Your task to perform on an android device: Open location settings Image 0: 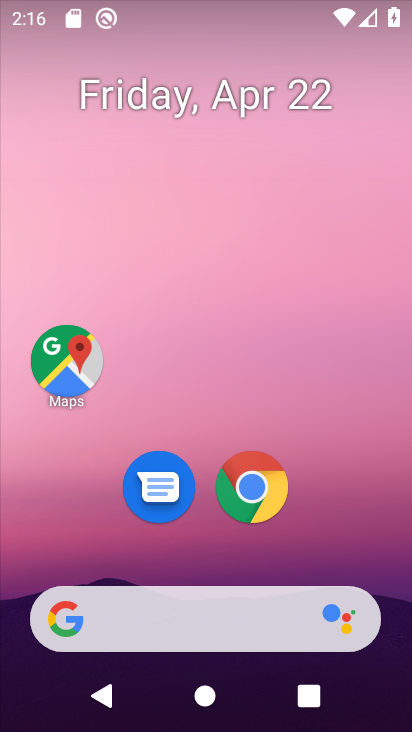
Step 0: drag from (344, 510) to (354, 190)
Your task to perform on an android device: Open location settings Image 1: 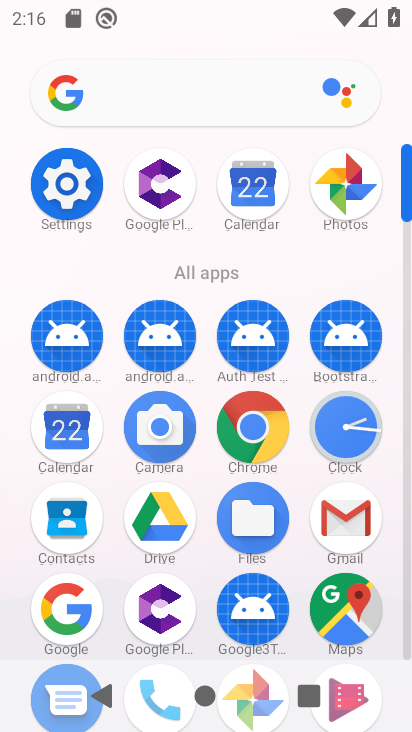
Step 1: click (67, 196)
Your task to perform on an android device: Open location settings Image 2: 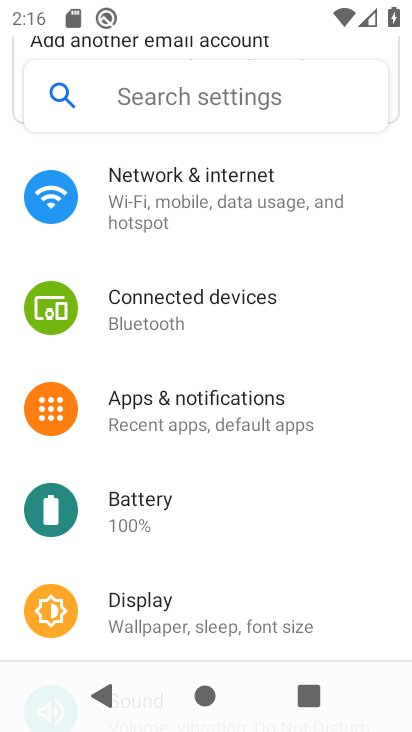
Step 2: click (48, 194)
Your task to perform on an android device: Open location settings Image 3: 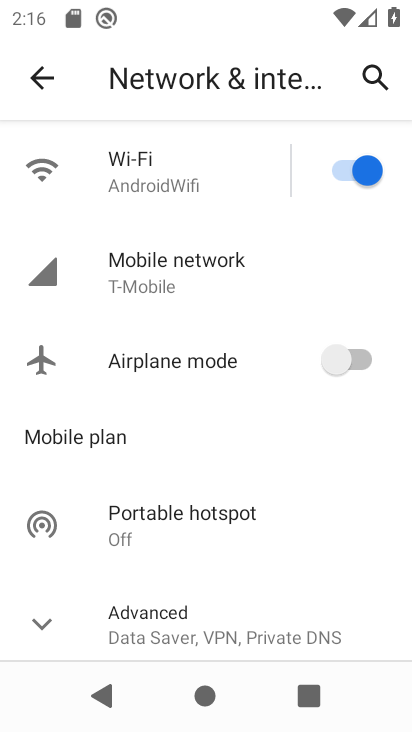
Step 3: drag from (217, 363) to (218, 220)
Your task to perform on an android device: Open location settings Image 4: 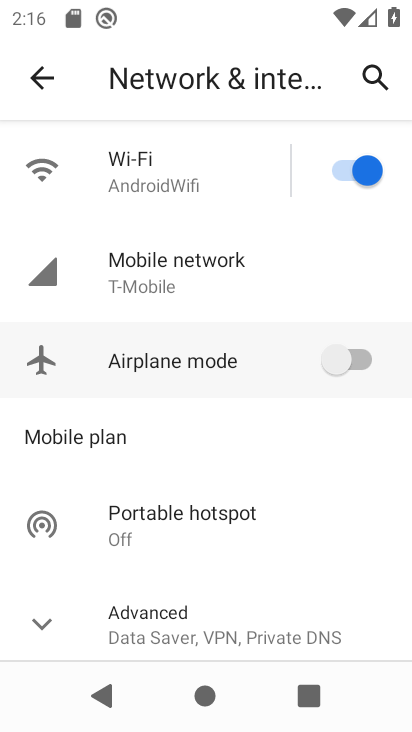
Step 4: click (44, 86)
Your task to perform on an android device: Open location settings Image 5: 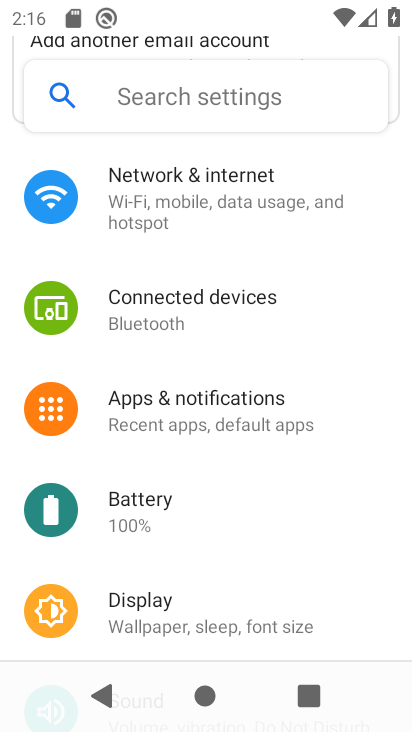
Step 5: drag from (205, 522) to (194, 159)
Your task to perform on an android device: Open location settings Image 6: 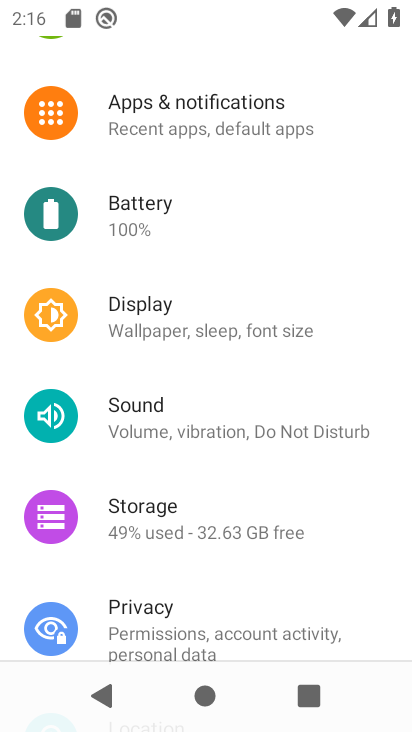
Step 6: drag from (224, 555) to (218, 207)
Your task to perform on an android device: Open location settings Image 7: 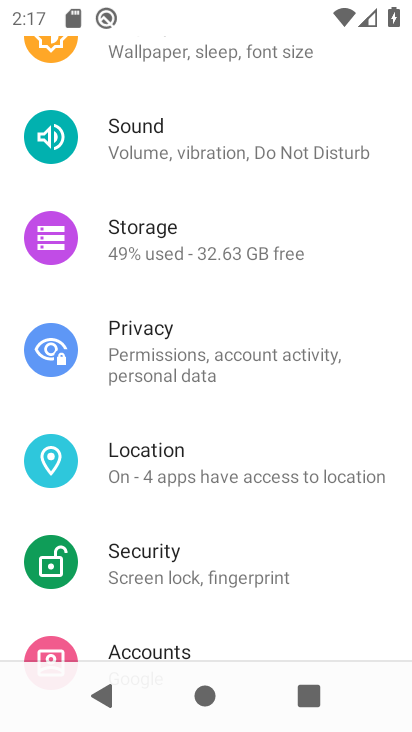
Step 7: click (187, 455)
Your task to perform on an android device: Open location settings Image 8: 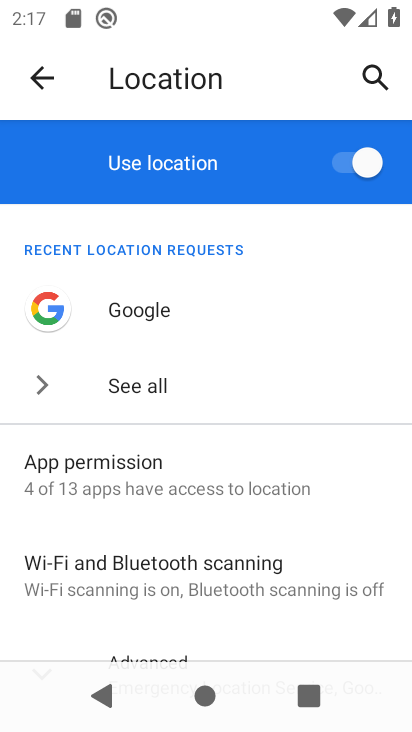
Step 8: task complete